Your task to perform on an android device: Open ESPN.com Image 0: 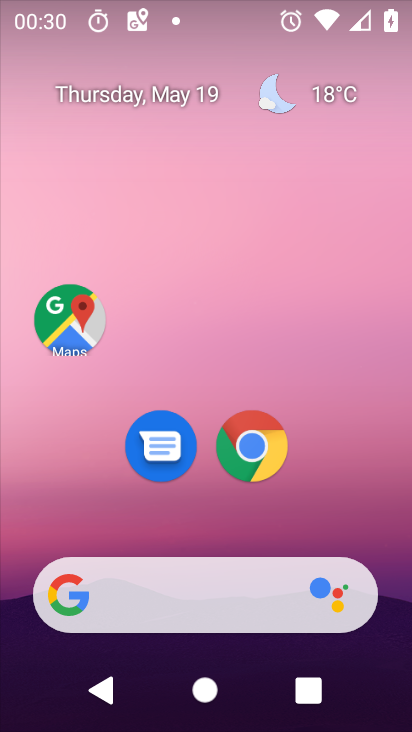
Step 0: press home button
Your task to perform on an android device: Open ESPN.com Image 1: 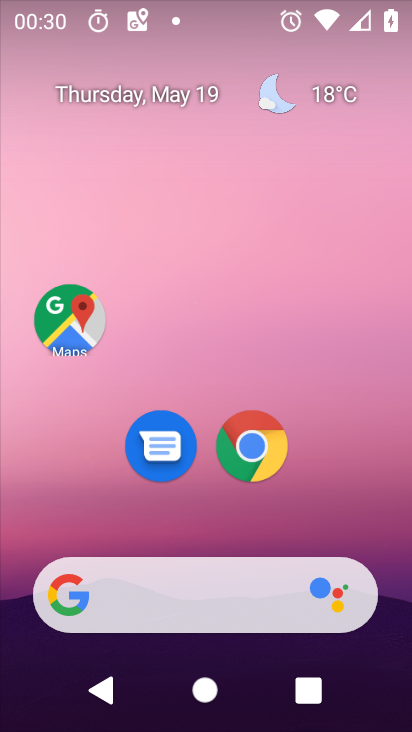
Step 1: click (262, 450)
Your task to perform on an android device: Open ESPN.com Image 2: 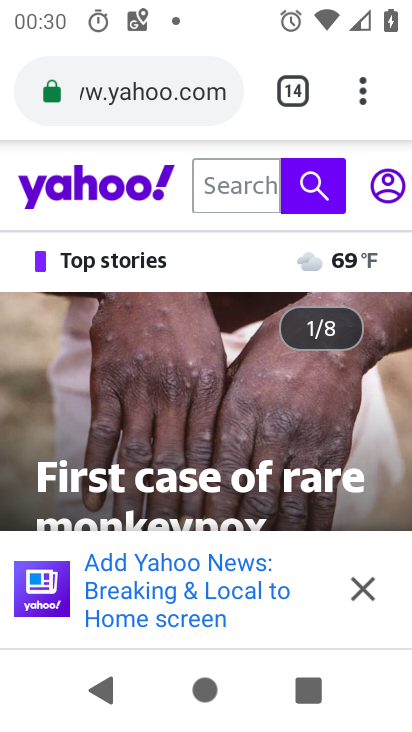
Step 2: drag from (362, 97) to (269, 168)
Your task to perform on an android device: Open ESPN.com Image 3: 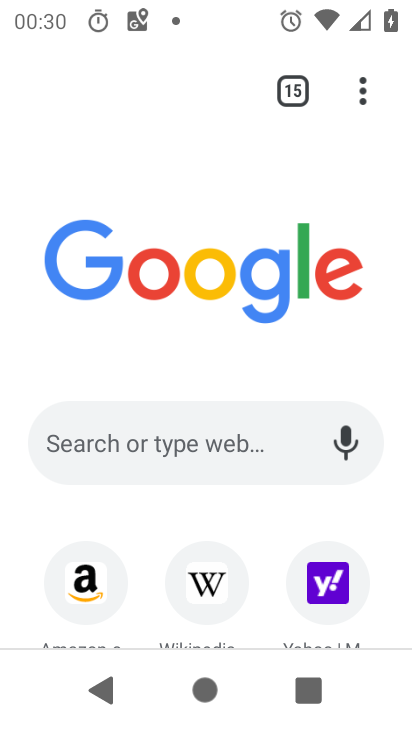
Step 3: drag from (216, 527) to (330, 224)
Your task to perform on an android device: Open ESPN.com Image 4: 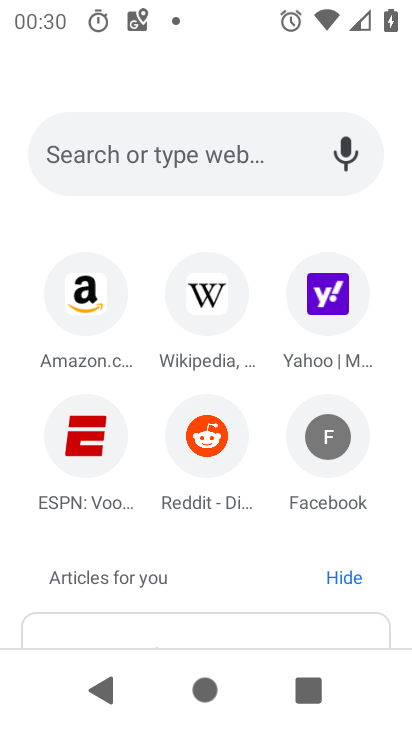
Step 4: click (89, 450)
Your task to perform on an android device: Open ESPN.com Image 5: 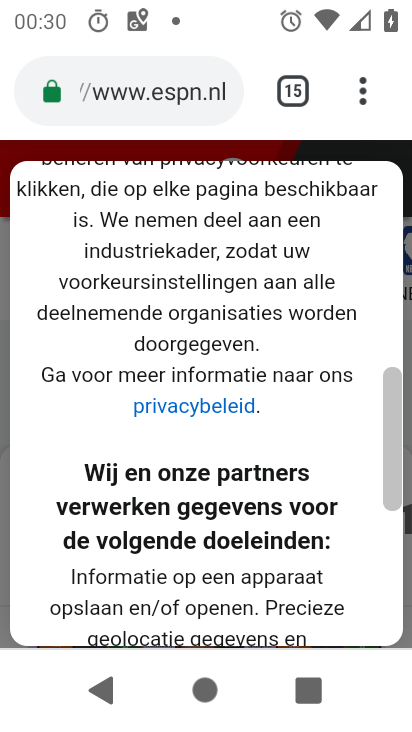
Step 5: drag from (266, 518) to (332, 224)
Your task to perform on an android device: Open ESPN.com Image 6: 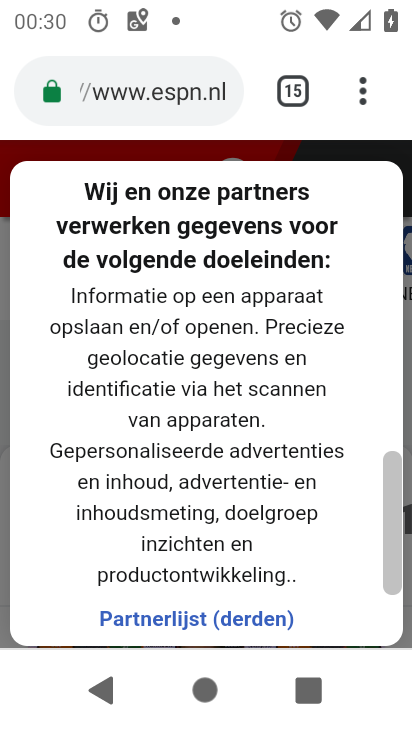
Step 6: drag from (292, 486) to (353, 284)
Your task to perform on an android device: Open ESPN.com Image 7: 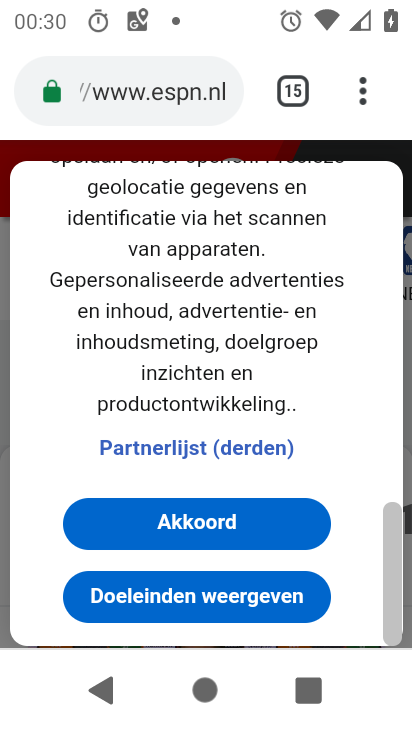
Step 7: drag from (275, 428) to (350, 240)
Your task to perform on an android device: Open ESPN.com Image 8: 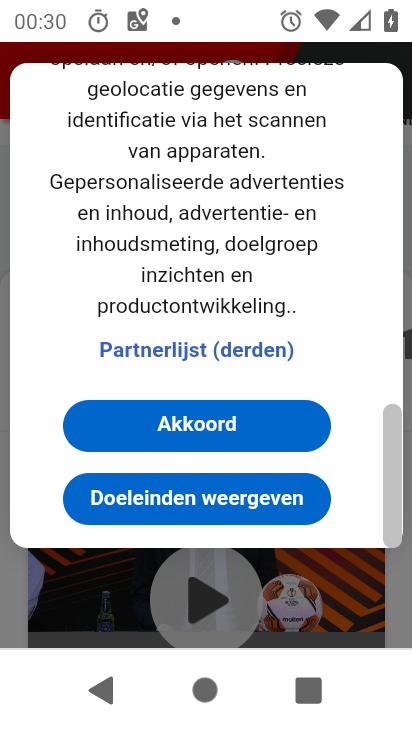
Step 8: click (202, 425)
Your task to perform on an android device: Open ESPN.com Image 9: 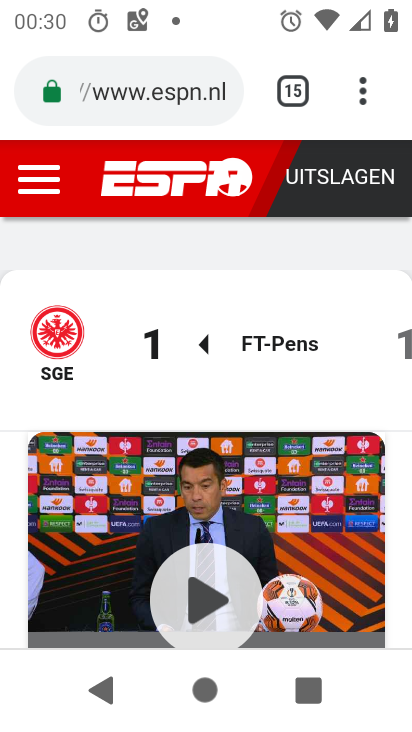
Step 9: task complete